Your task to perform on an android device: Open the stopwatch Image 0: 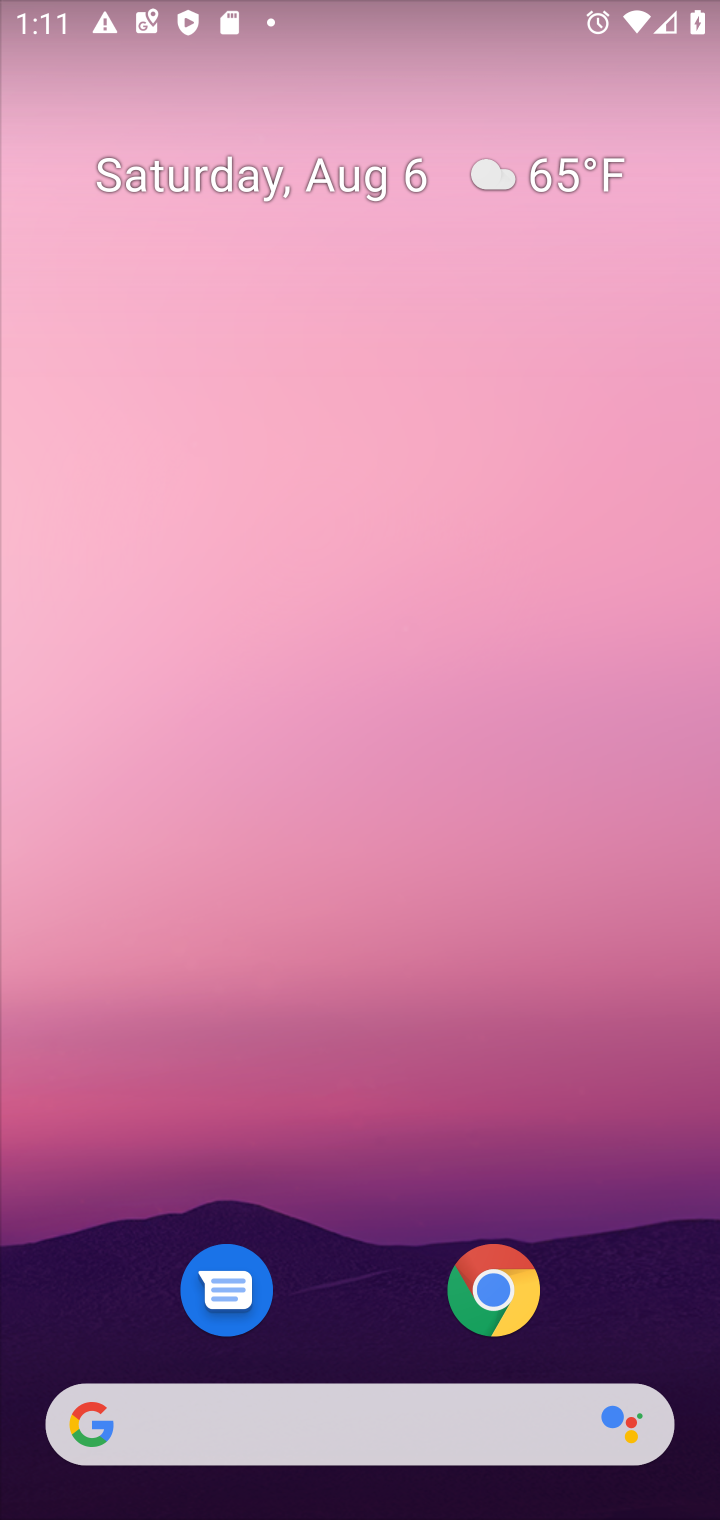
Step 0: drag from (366, 1344) to (410, 389)
Your task to perform on an android device: Open the stopwatch Image 1: 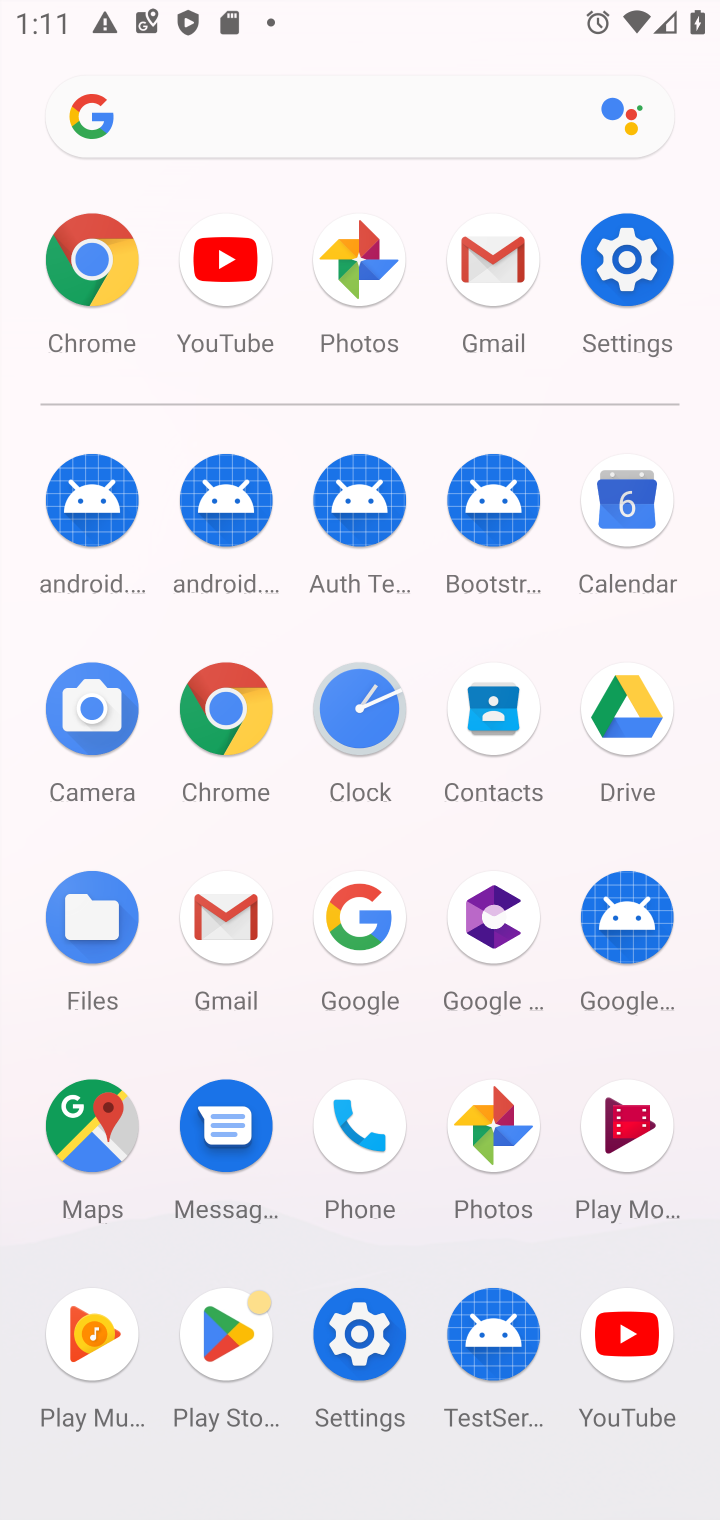
Step 1: click (358, 702)
Your task to perform on an android device: Open the stopwatch Image 2: 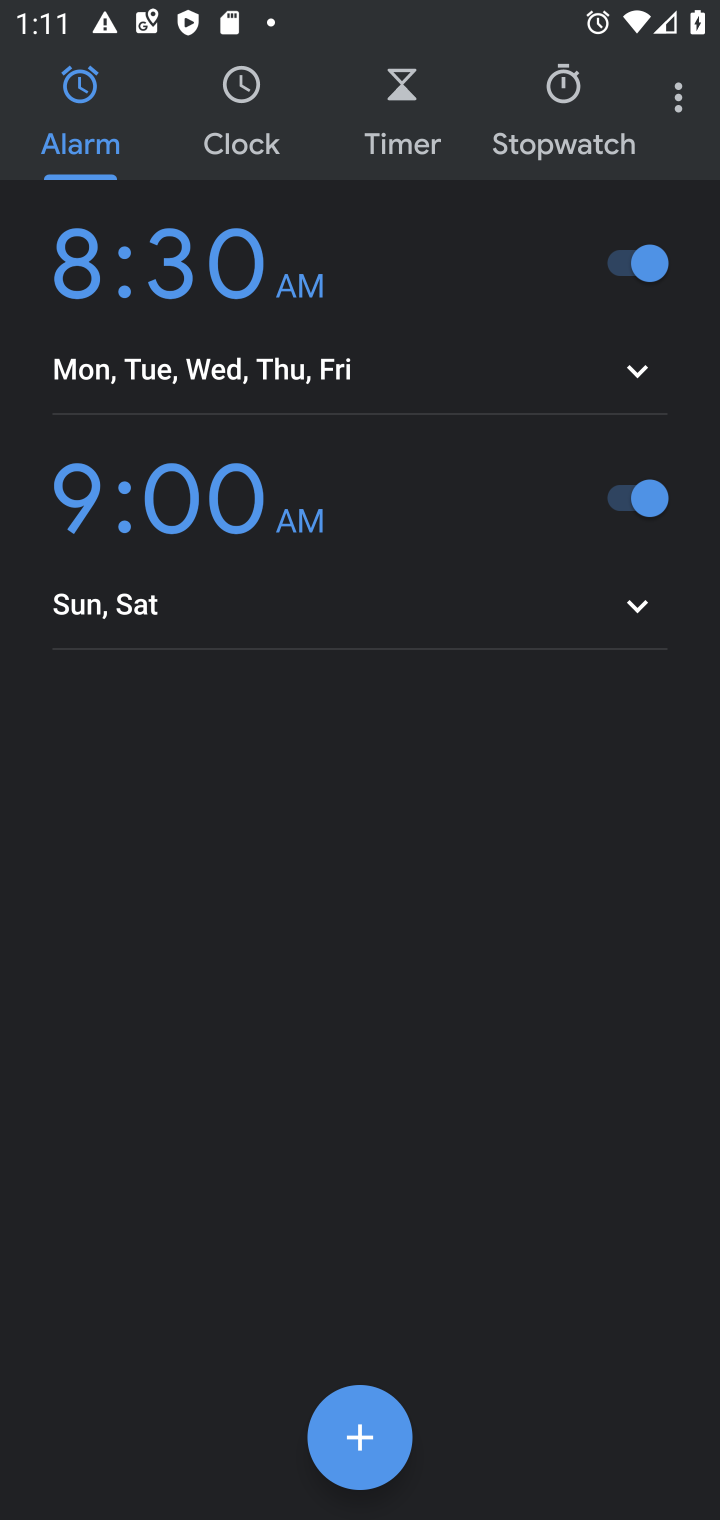
Step 2: click (533, 91)
Your task to perform on an android device: Open the stopwatch Image 3: 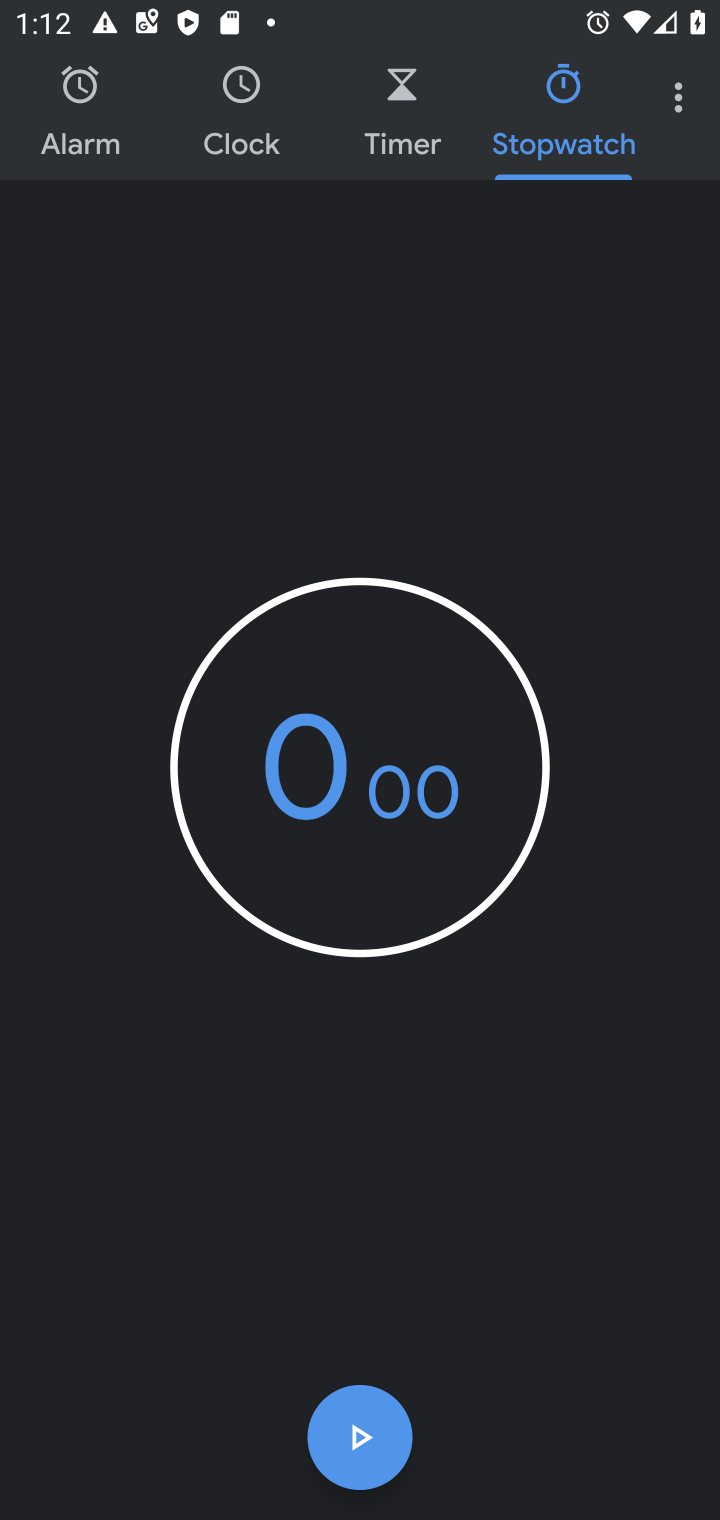
Step 3: click (348, 1422)
Your task to perform on an android device: Open the stopwatch Image 4: 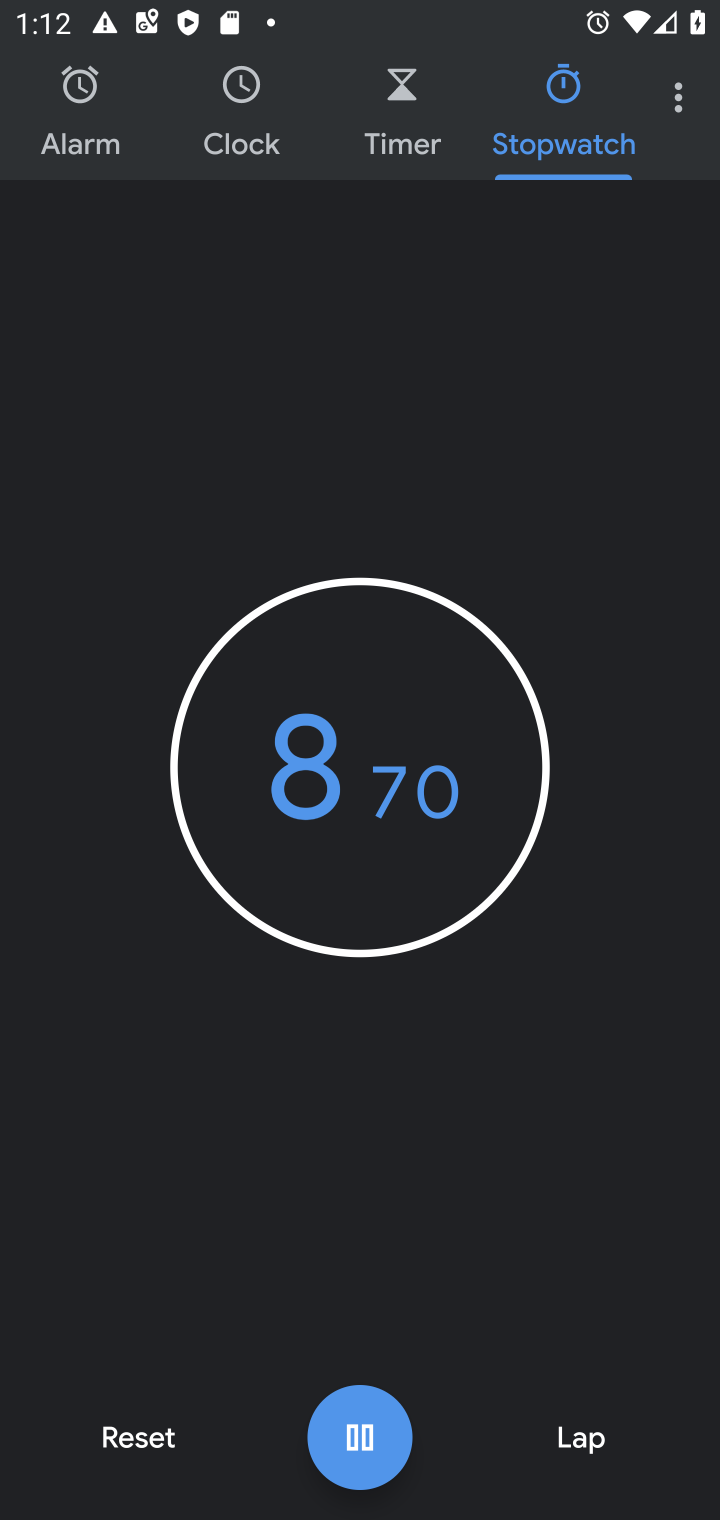
Step 4: task complete